Your task to perform on an android device: open a new tab in the chrome app Image 0: 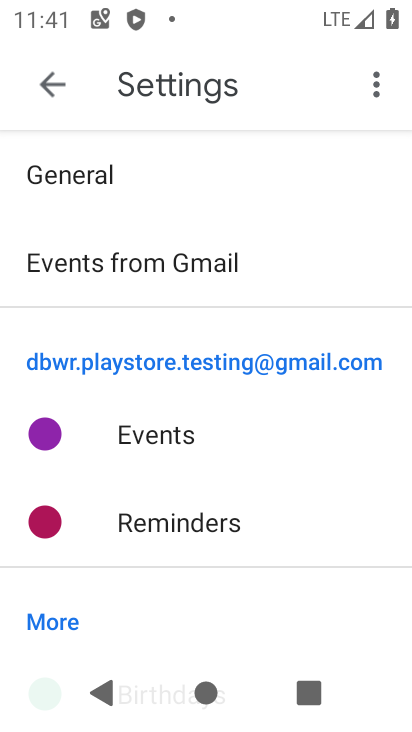
Step 0: press back button
Your task to perform on an android device: open a new tab in the chrome app Image 1: 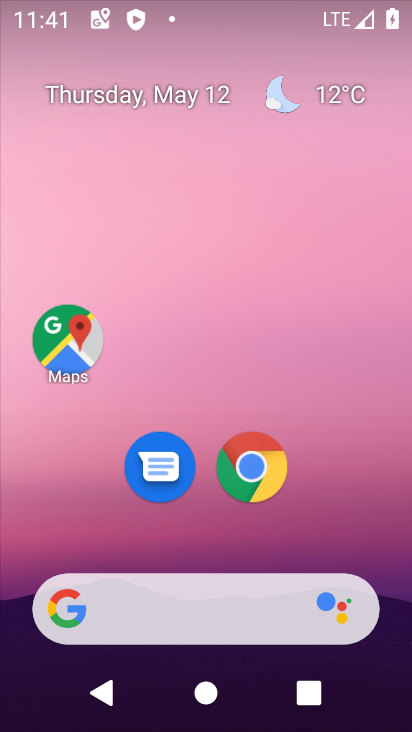
Step 1: click (243, 460)
Your task to perform on an android device: open a new tab in the chrome app Image 2: 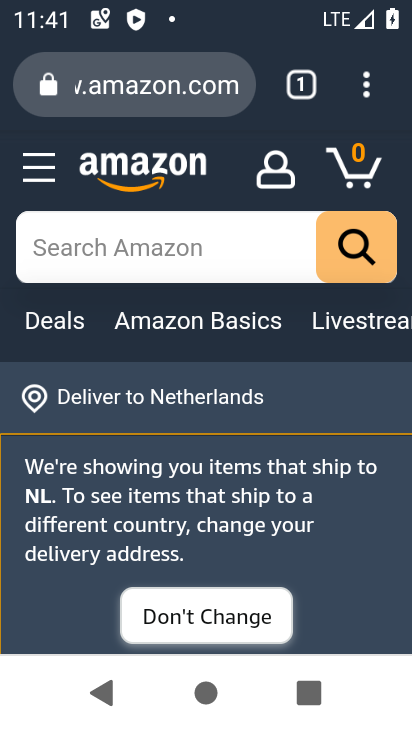
Step 2: task complete